Your task to perform on an android device: check android version Image 0: 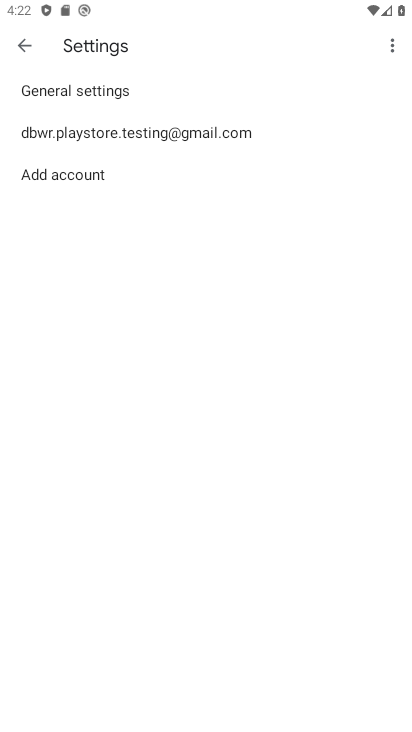
Step 0: press home button
Your task to perform on an android device: check android version Image 1: 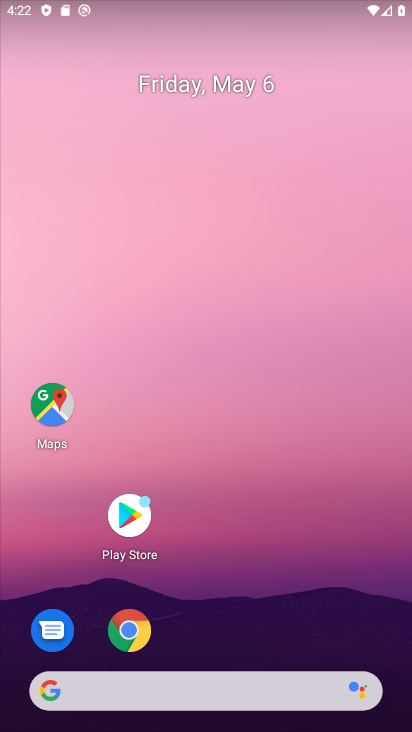
Step 1: drag from (219, 696) to (203, 269)
Your task to perform on an android device: check android version Image 2: 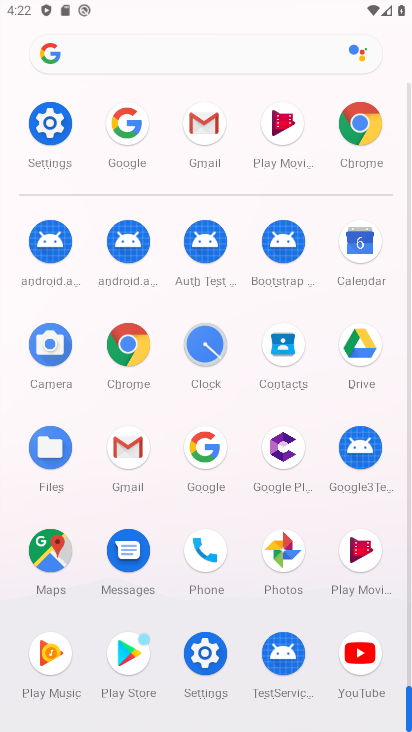
Step 2: click (47, 141)
Your task to perform on an android device: check android version Image 3: 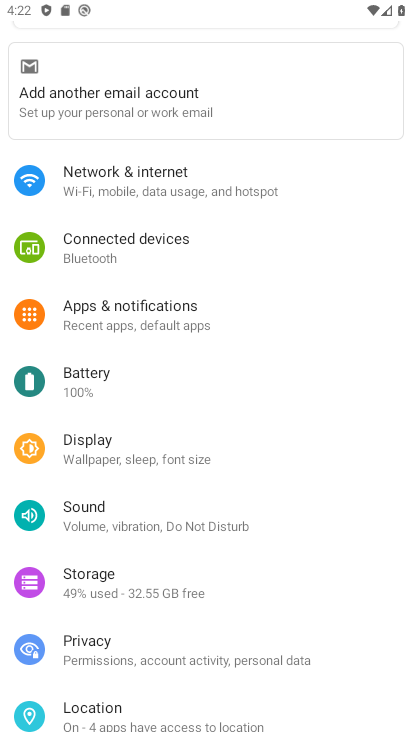
Step 3: drag from (160, 646) to (171, 264)
Your task to perform on an android device: check android version Image 4: 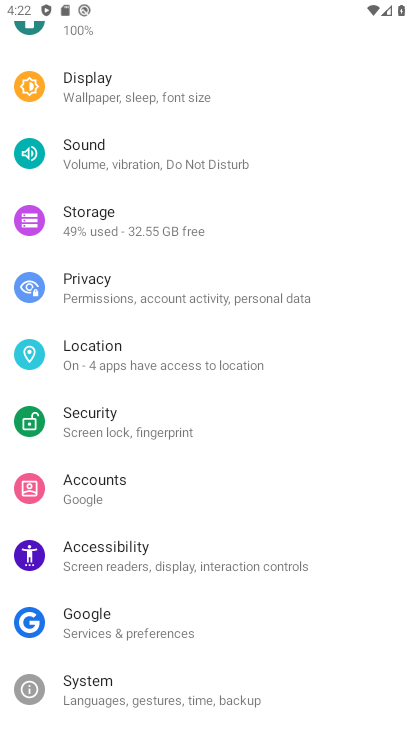
Step 4: drag from (191, 619) to (196, 350)
Your task to perform on an android device: check android version Image 5: 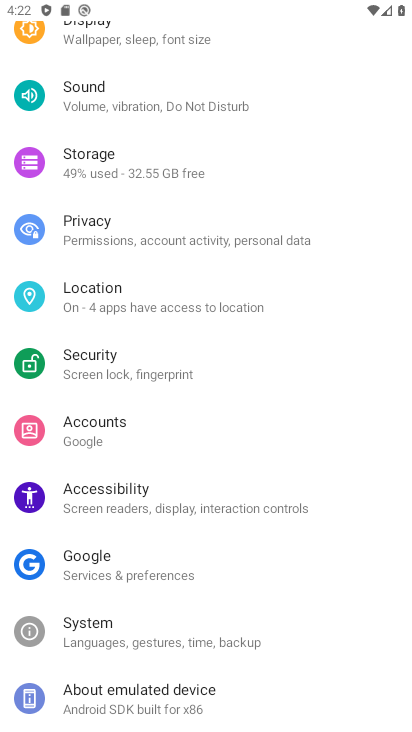
Step 5: click (176, 710)
Your task to perform on an android device: check android version Image 6: 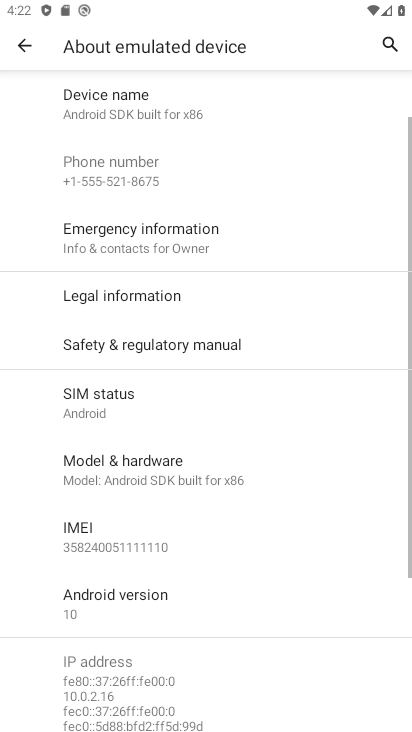
Step 6: drag from (268, 514) to (271, 333)
Your task to perform on an android device: check android version Image 7: 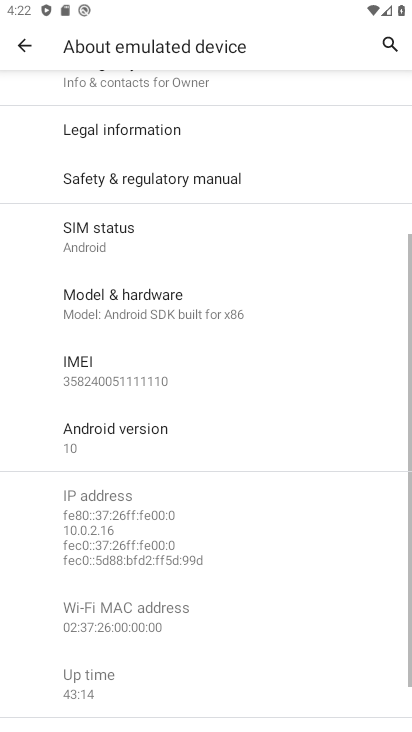
Step 7: click (163, 442)
Your task to perform on an android device: check android version Image 8: 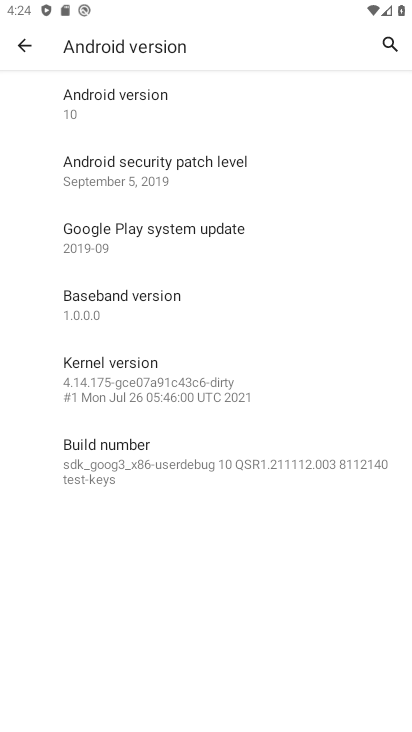
Step 8: task complete